Your task to perform on an android device: Search for custom wallets on etsy. Image 0: 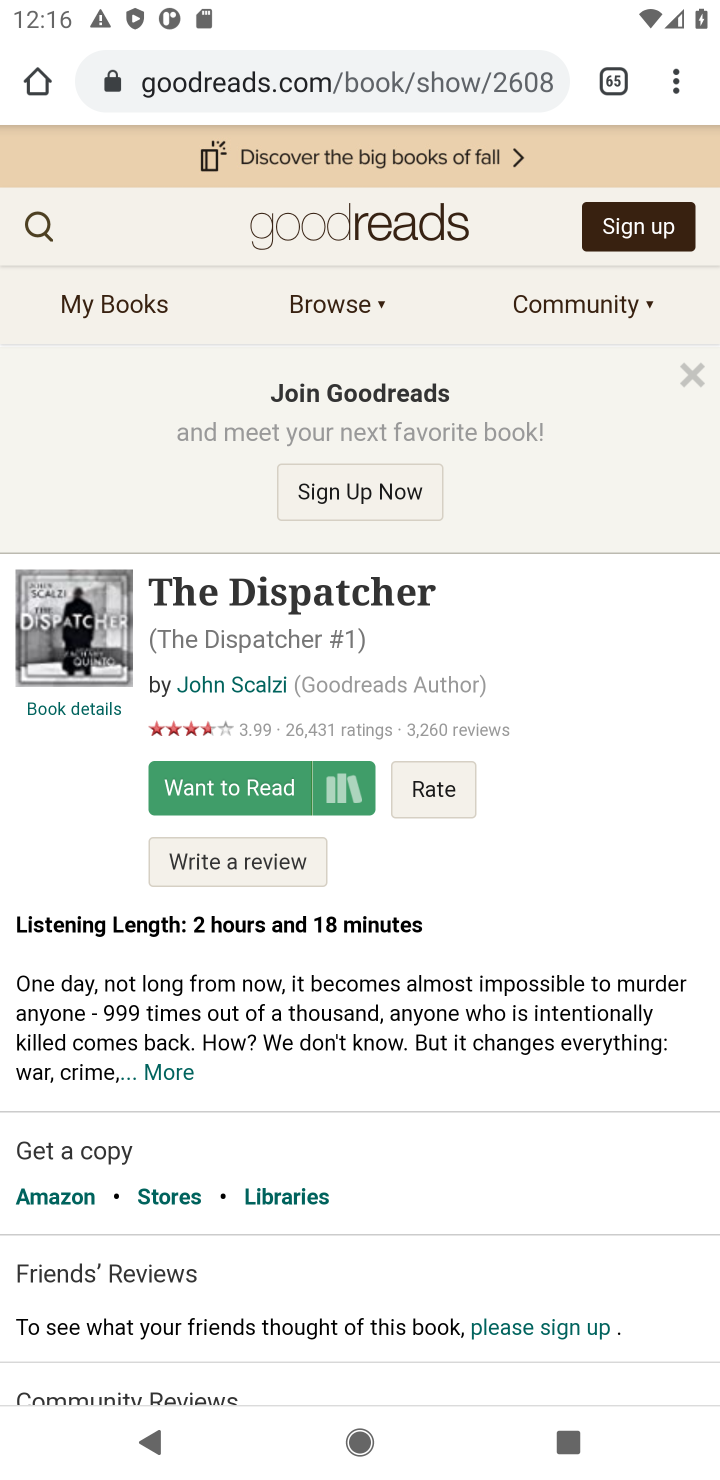
Step 0: press home button
Your task to perform on an android device: Search for custom wallets on etsy. Image 1: 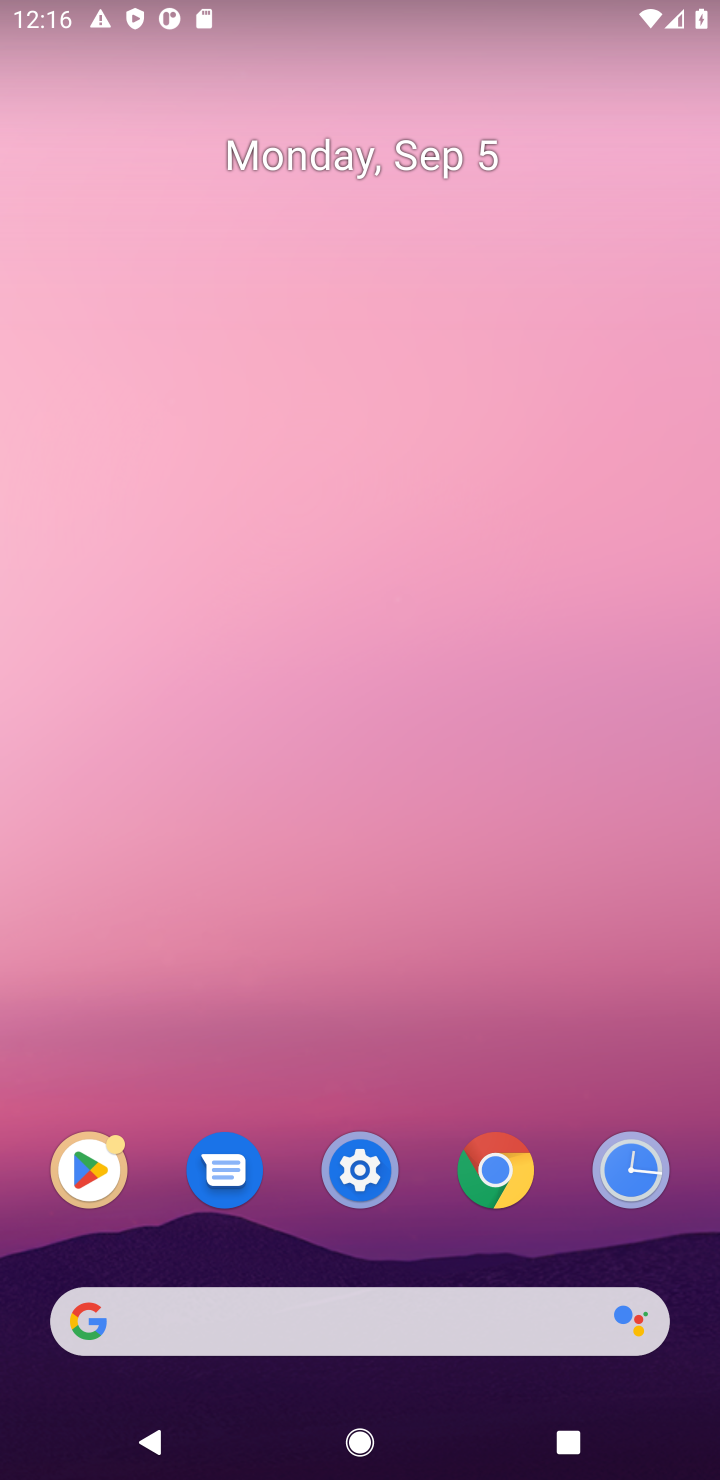
Step 1: click (384, 1319)
Your task to perform on an android device: Search for custom wallets on etsy. Image 2: 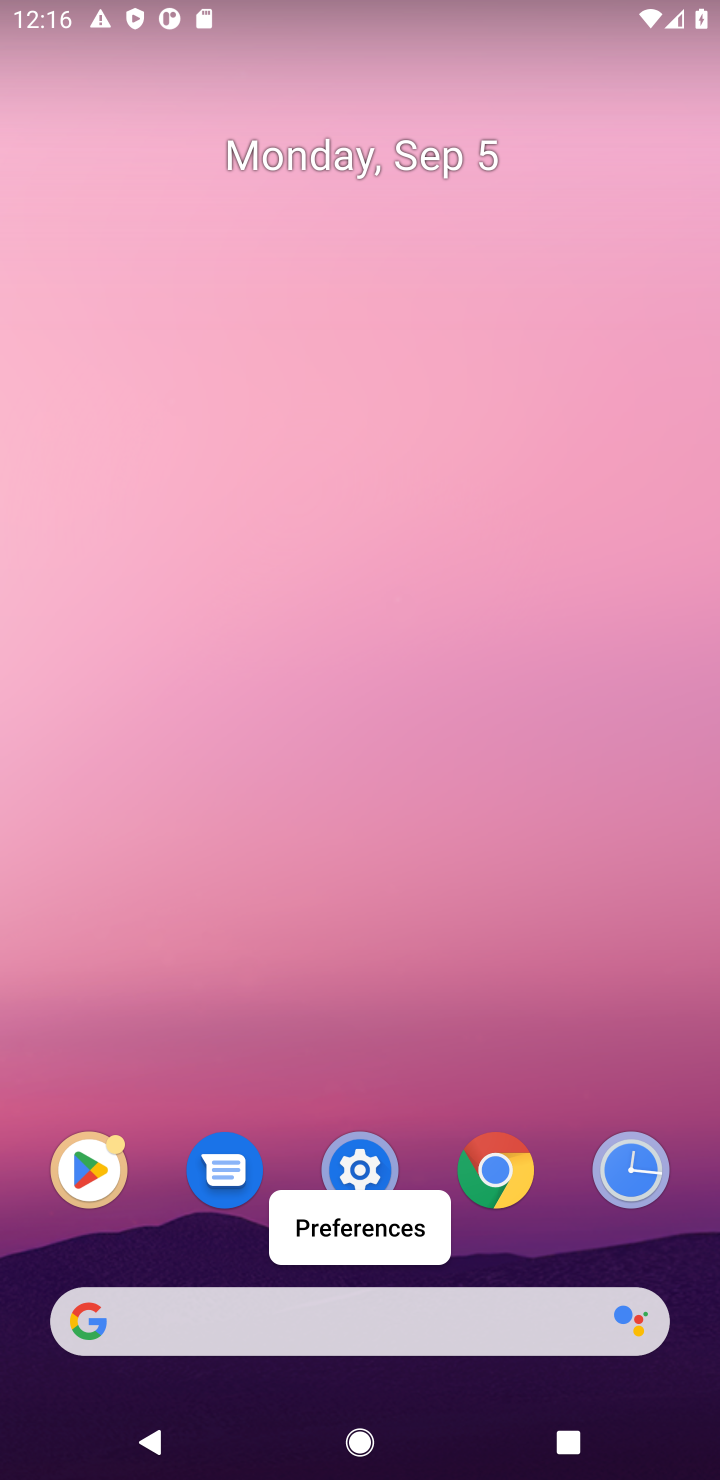
Step 2: click (391, 1323)
Your task to perform on an android device: Search for custom wallets on etsy. Image 3: 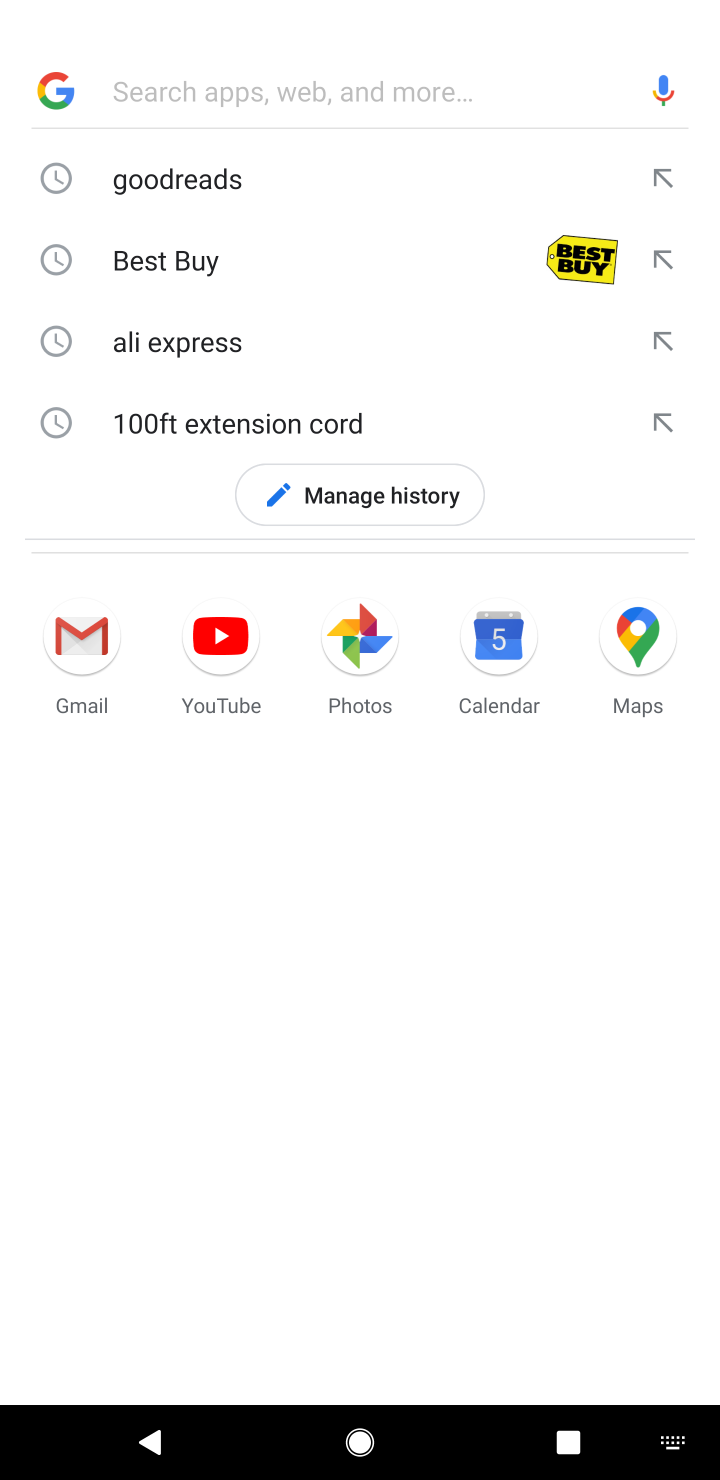
Step 3: type "etsy."
Your task to perform on an android device: Search for custom wallets on etsy. Image 4: 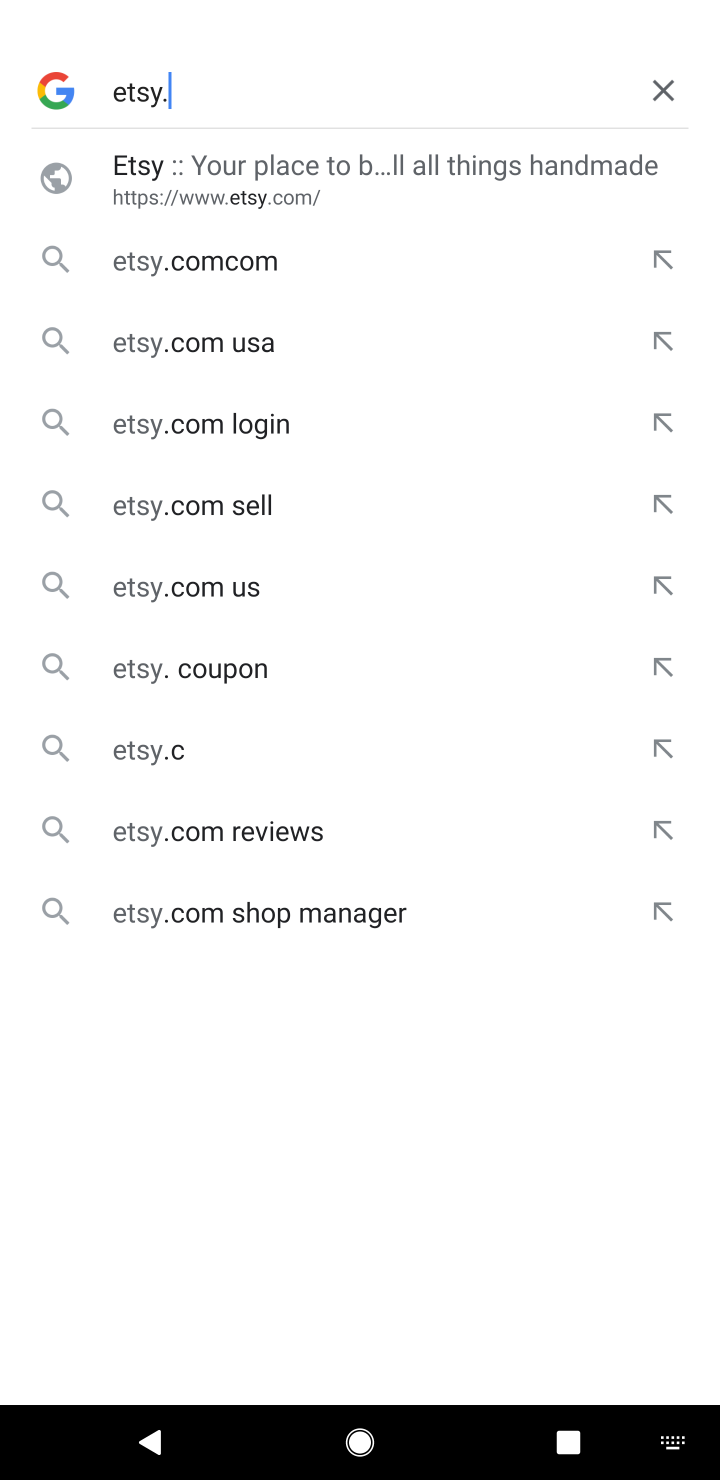
Step 4: click (272, 179)
Your task to perform on an android device: Search for custom wallets on etsy. Image 5: 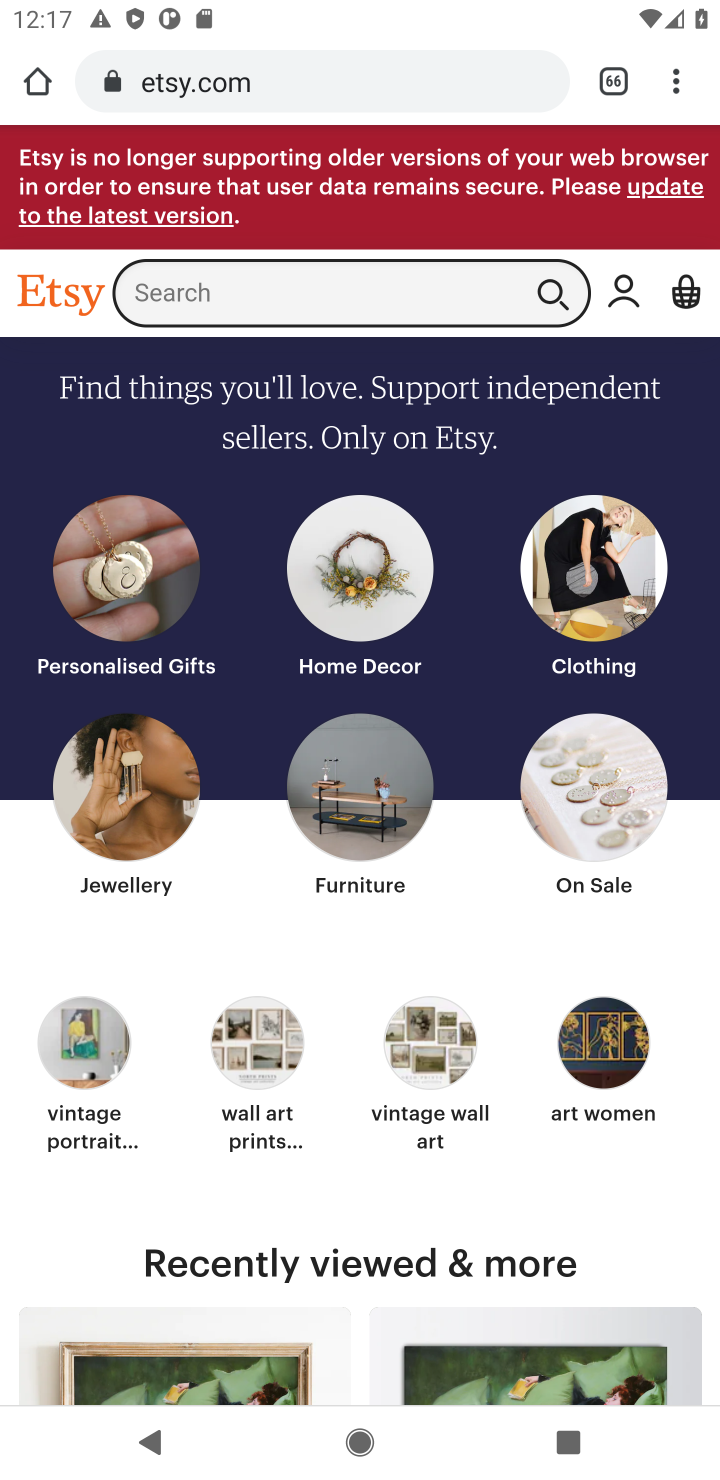
Step 5: click (290, 297)
Your task to perform on an android device: Search for custom wallets on etsy. Image 6: 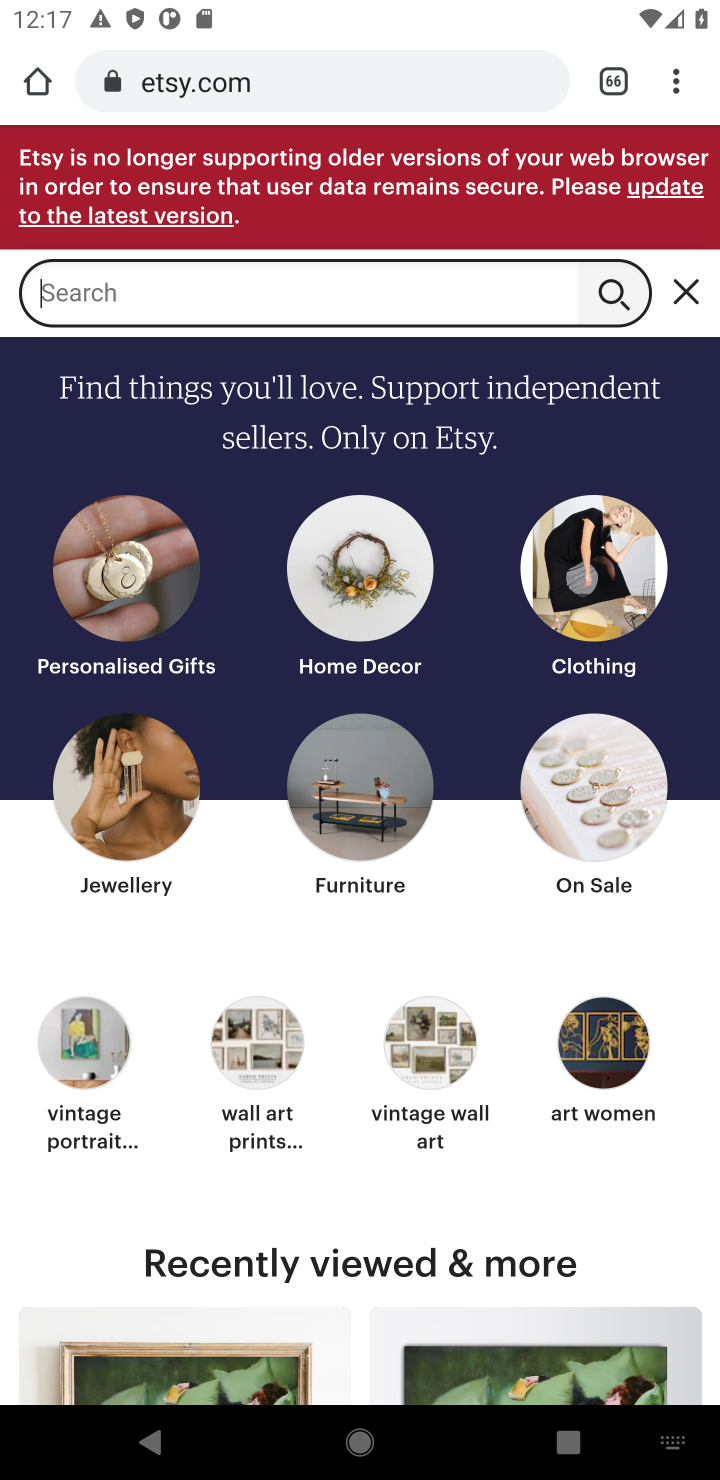
Step 6: type "custom wallets"
Your task to perform on an android device: Search for custom wallets on etsy. Image 7: 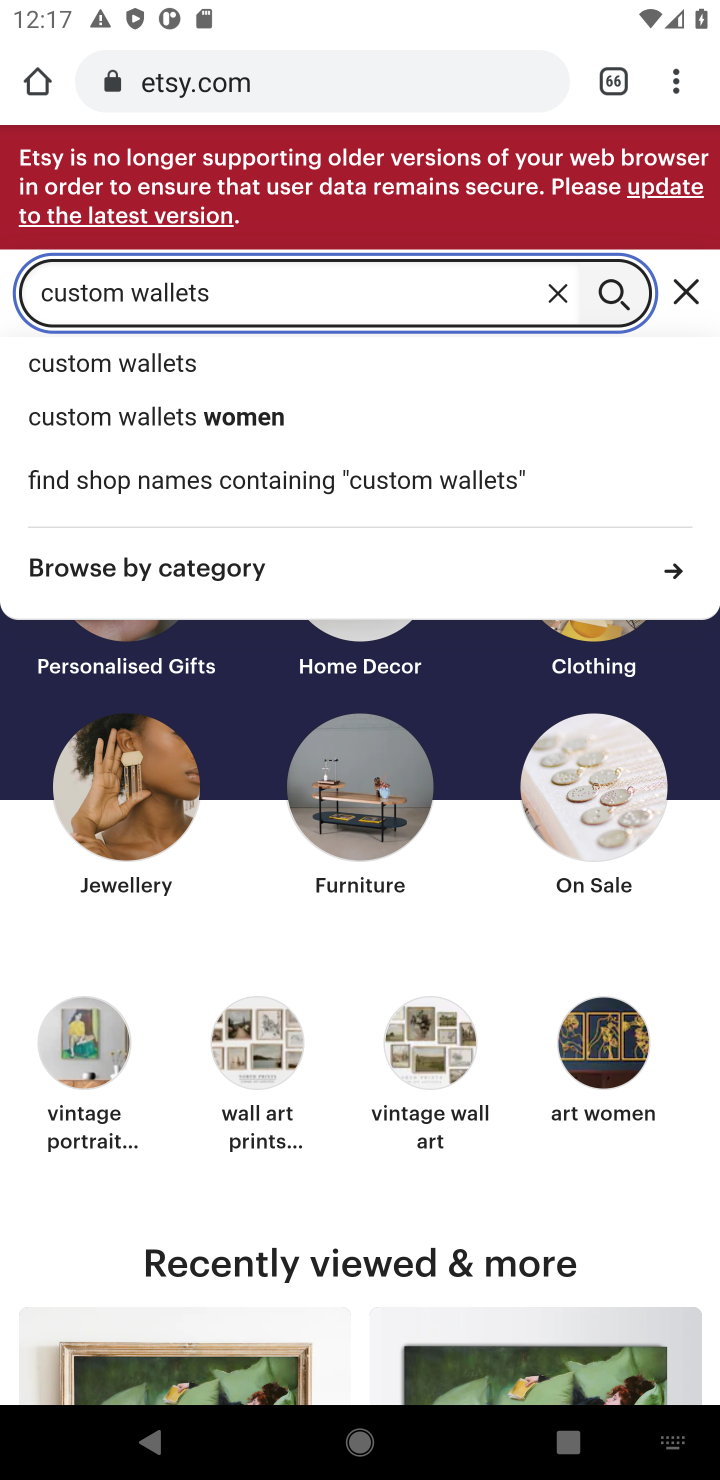
Step 7: click (188, 358)
Your task to perform on an android device: Search for custom wallets on etsy. Image 8: 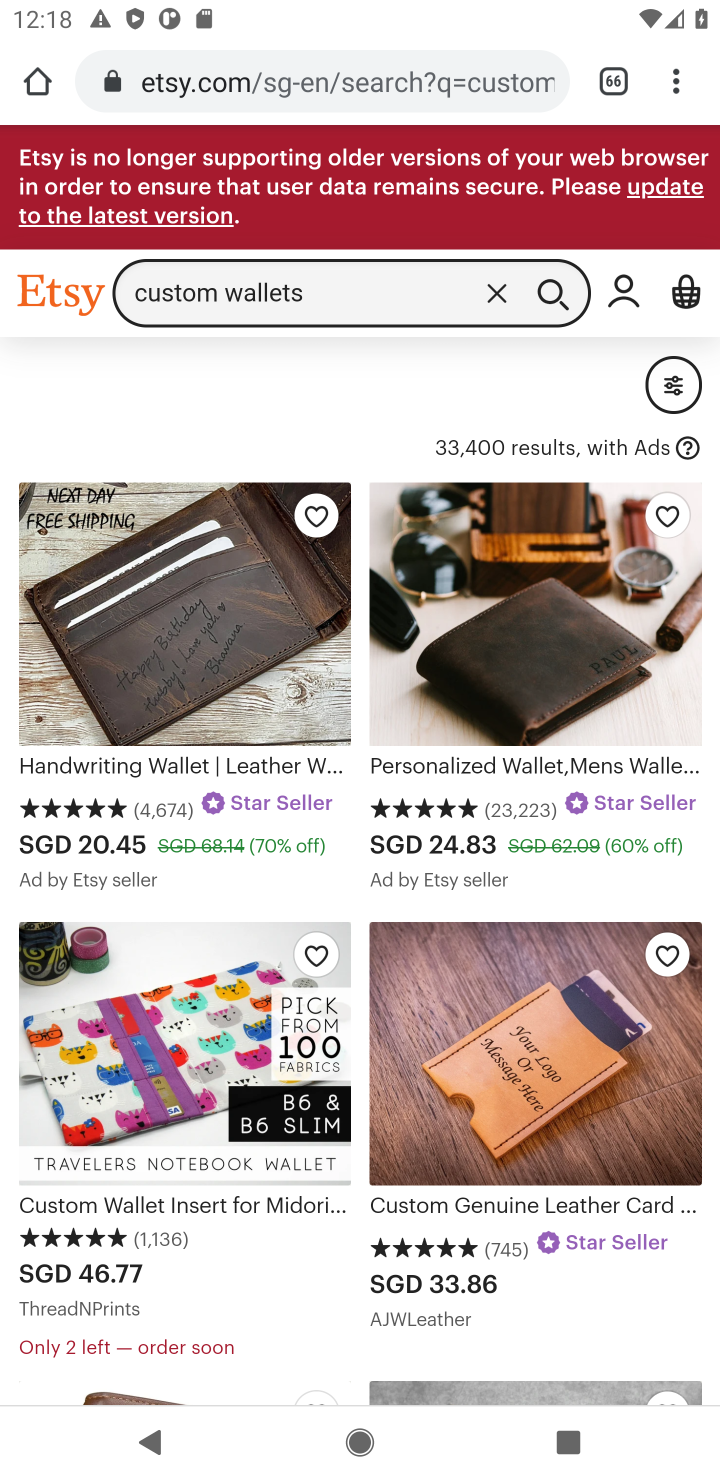
Step 8: task complete